Your task to perform on an android device: Open eBay Image 0: 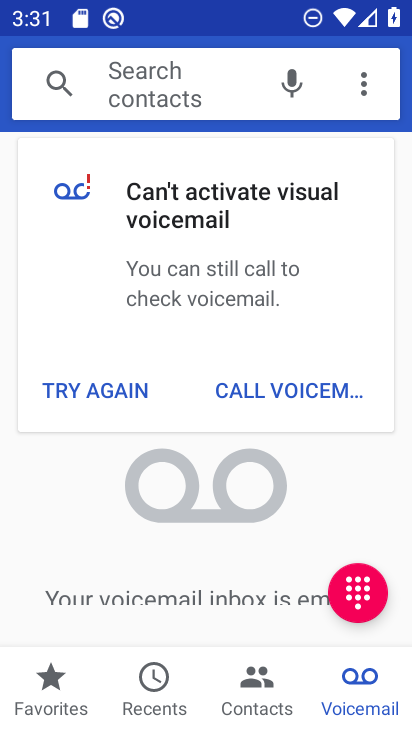
Step 0: press home button
Your task to perform on an android device: Open eBay Image 1: 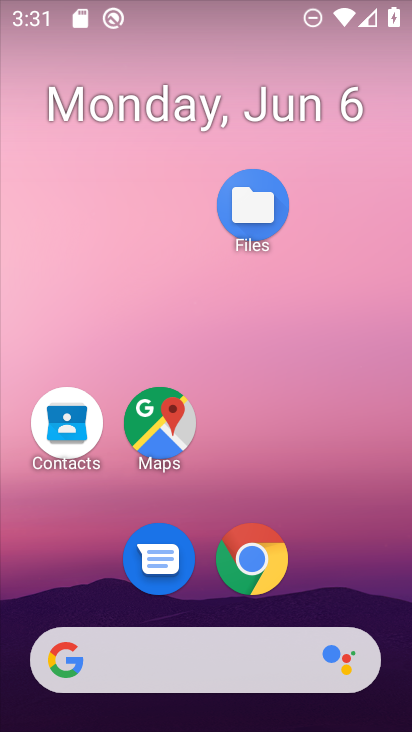
Step 1: click (272, 576)
Your task to perform on an android device: Open eBay Image 2: 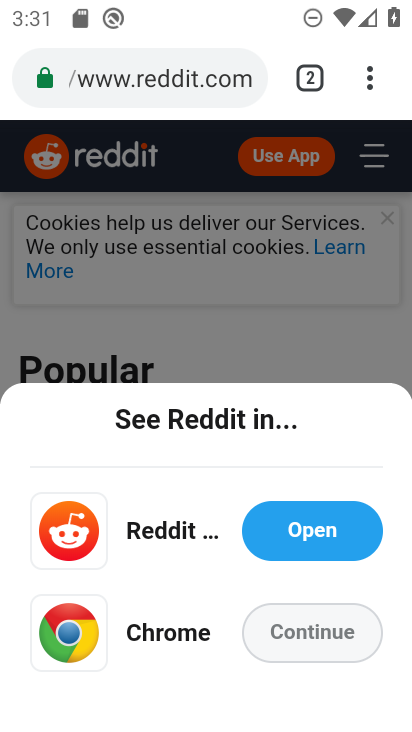
Step 2: click (186, 80)
Your task to perform on an android device: Open eBay Image 3: 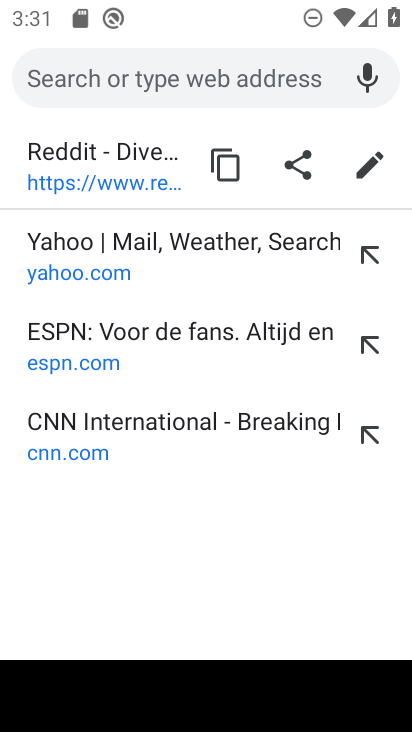
Step 3: type "ebay"
Your task to perform on an android device: Open eBay Image 4: 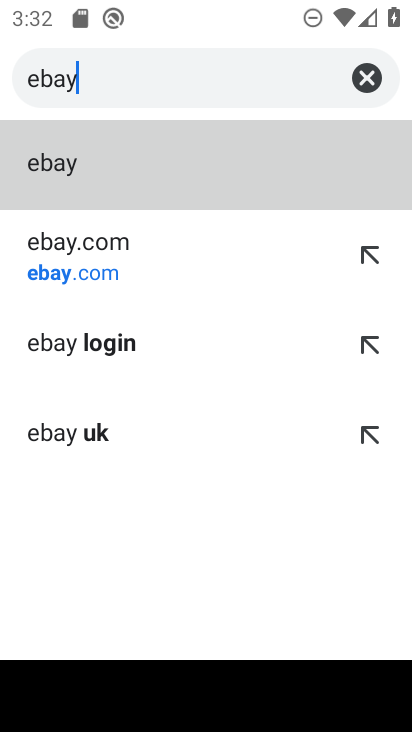
Step 4: click (150, 273)
Your task to perform on an android device: Open eBay Image 5: 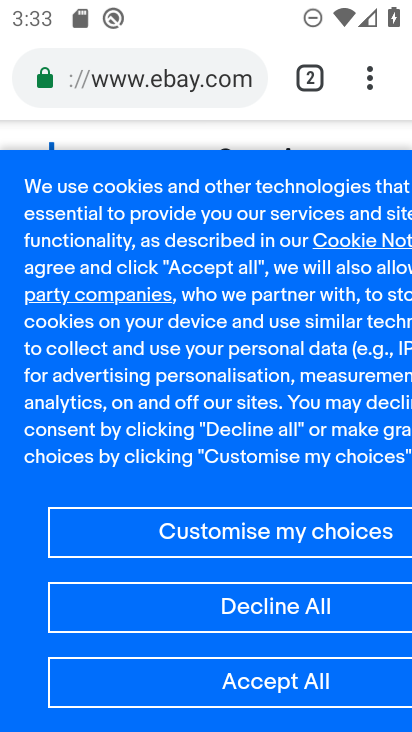
Step 5: task complete